Your task to perform on an android device: make emails show in primary in the gmail app Image 0: 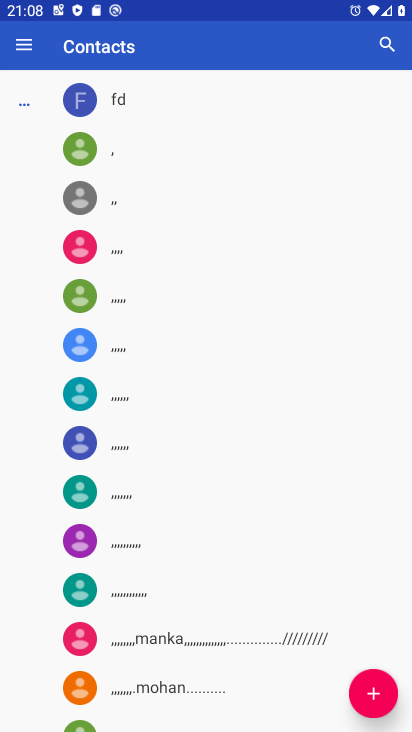
Step 0: press home button
Your task to perform on an android device: make emails show in primary in the gmail app Image 1: 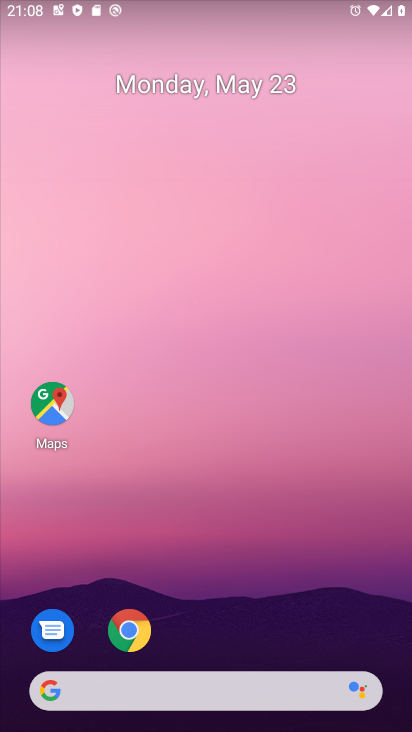
Step 1: drag from (182, 671) to (190, 359)
Your task to perform on an android device: make emails show in primary in the gmail app Image 2: 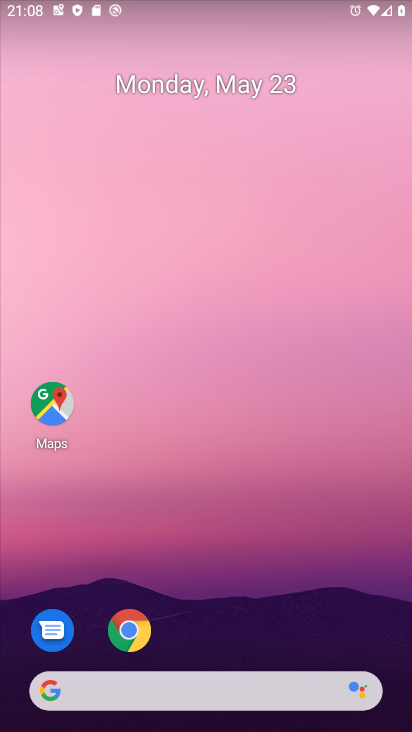
Step 2: drag from (188, 674) to (187, 216)
Your task to perform on an android device: make emails show in primary in the gmail app Image 3: 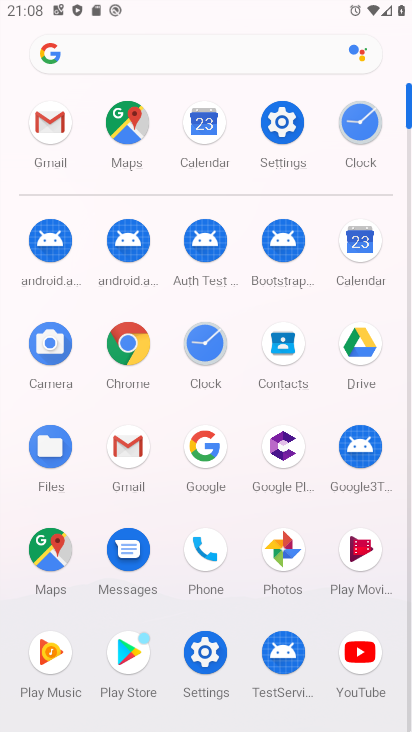
Step 3: click (128, 454)
Your task to perform on an android device: make emails show in primary in the gmail app Image 4: 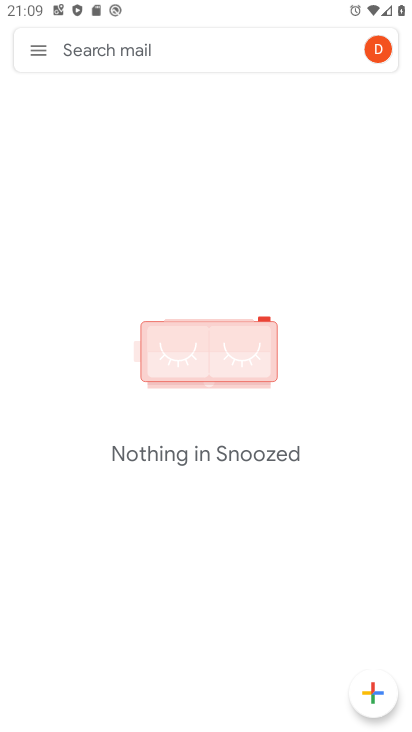
Step 4: click (44, 47)
Your task to perform on an android device: make emails show in primary in the gmail app Image 5: 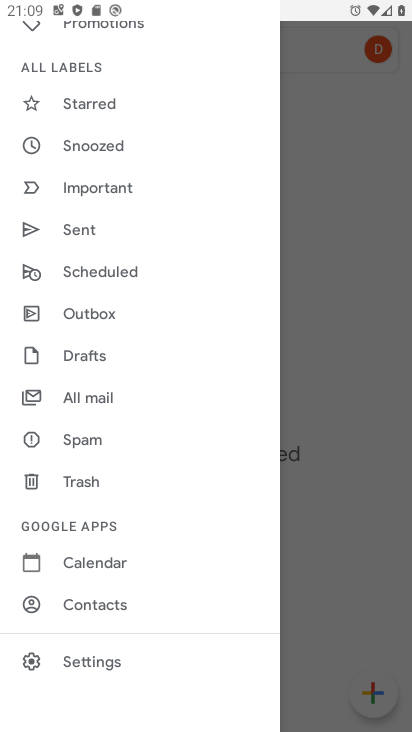
Step 5: click (109, 654)
Your task to perform on an android device: make emails show in primary in the gmail app Image 6: 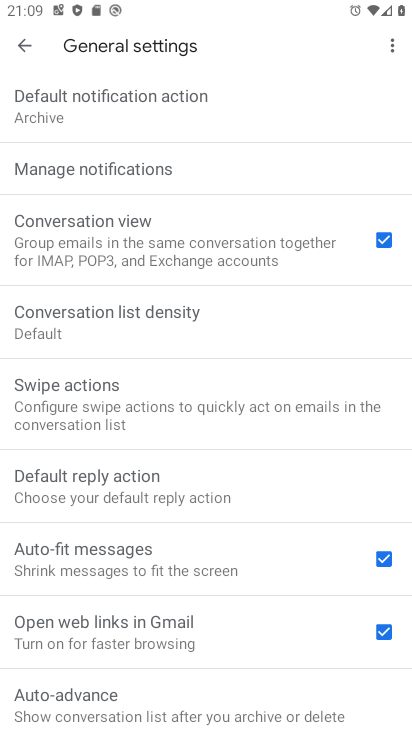
Step 6: drag from (124, 141) to (124, 561)
Your task to perform on an android device: make emails show in primary in the gmail app Image 7: 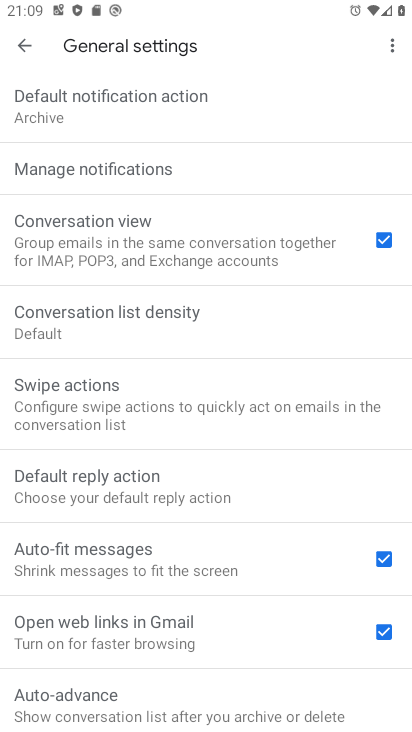
Step 7: click (29, 52)
Your task to perform on an android device: make emails show in primary in the gmail app Image 8: 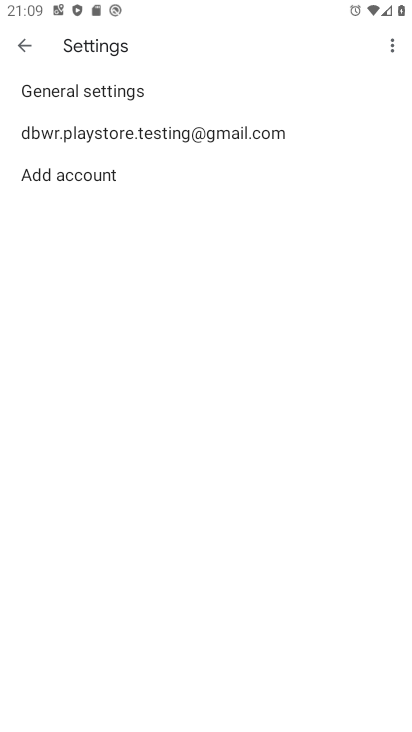
Step 8: click (47, 142)
Your task to perform on an android device: make emails show in primary in the gmail app Image 9: 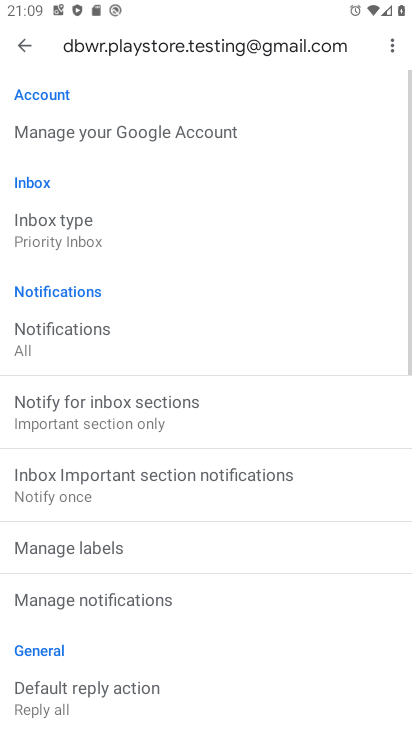
Step 9: click (61, 232)
Your task to perform on an android device: make emails show in primary in the gmail app Image 10: 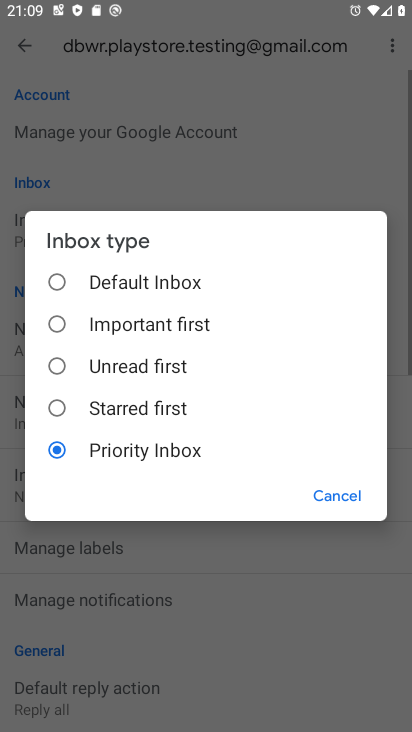
Step 10: click (130, 274)
Your task to perform on an android device: make emails show in primary in the gmail app Image 11: 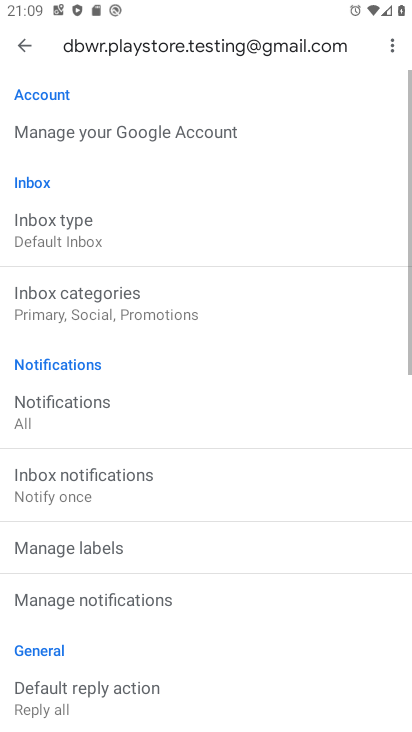
Step 11: click (80, 307)
Your task to perform on an android device: make emails show in primary in the gmail app Image 12: 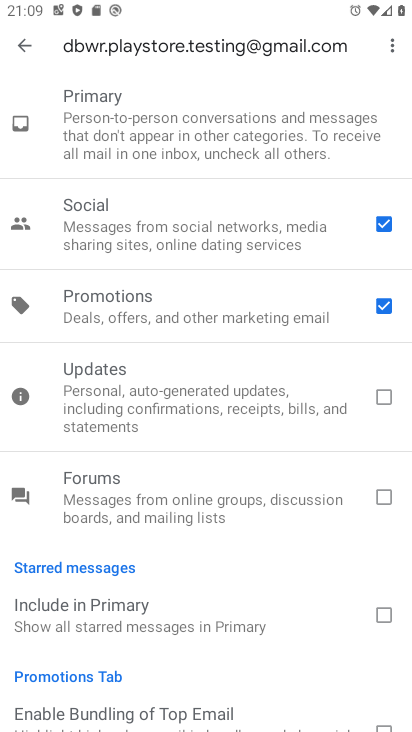
Step 12: click (374, 306)
Your task to perform on an android device: make emails show in primary in the gmail app Image 13: 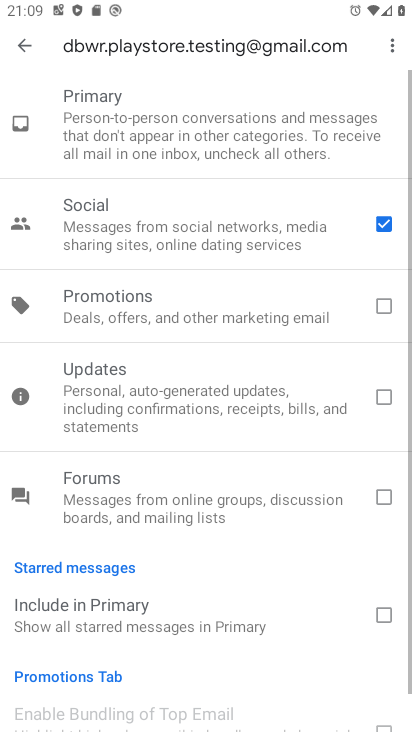
Step 13: click (381, 217)
Your task to perform on an android device: make emails show in primary in the gmail app Image 14: 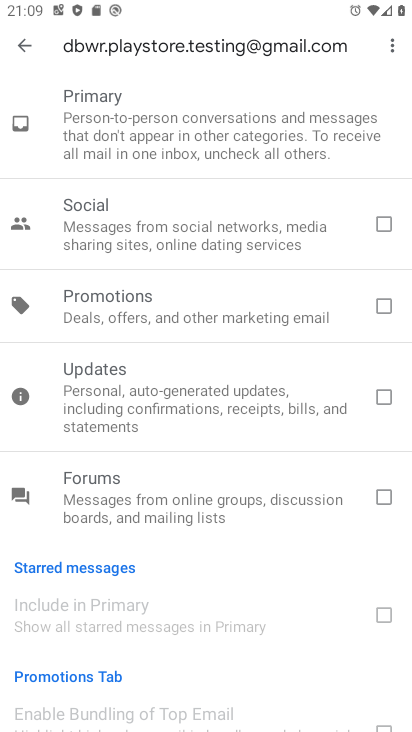
Step 14: click (28, 40)
Your task to perform on an android device: make emails show in primary in the gmail app Image 15: 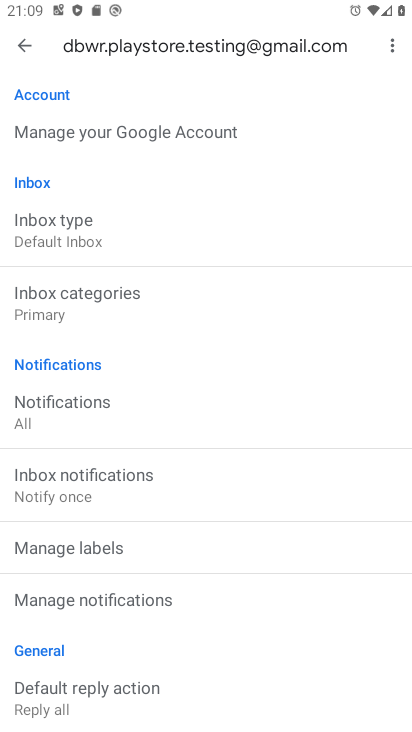
Step 15: task complete